Your task to perform on an android device: Show me the alarms in the clock app Image 0: 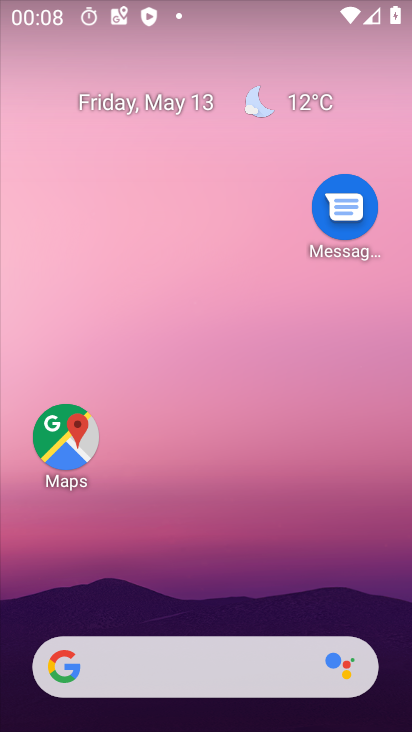
Step 0: drag from (278, 535) to (292, 41)
Your task to perform on an android device: Show me the alarms in the clock app Image 1: 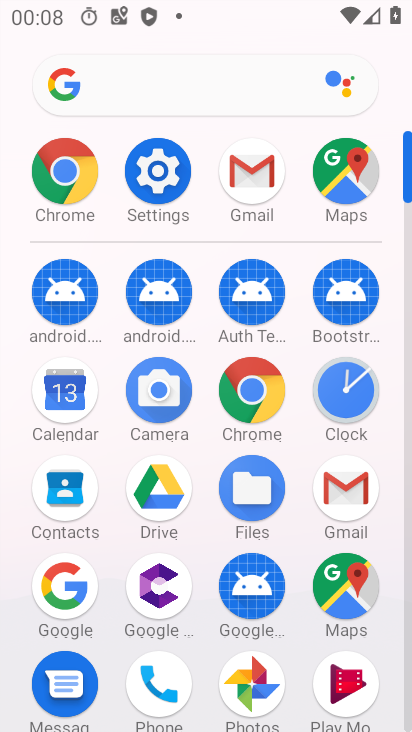
Step 1: click (349, 391)
Your task to perform on an android device: Show me the alarms in the clock app Image 2: 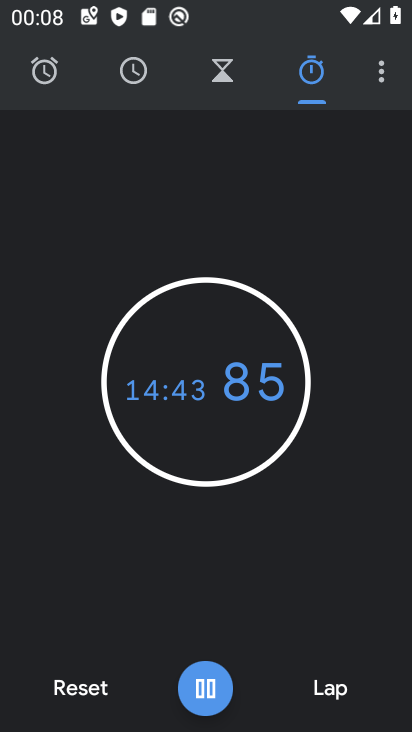
Step 2: click (45, 70)
Your task to perform on an android device: Show me the alarms in the clock app Image 3: 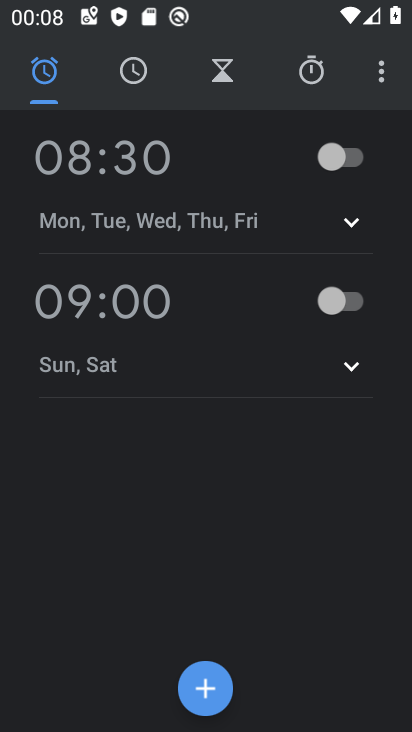
Step 3: task complete